Your task to perform on an android device: turn on the 12-hour format for clock Image 0: 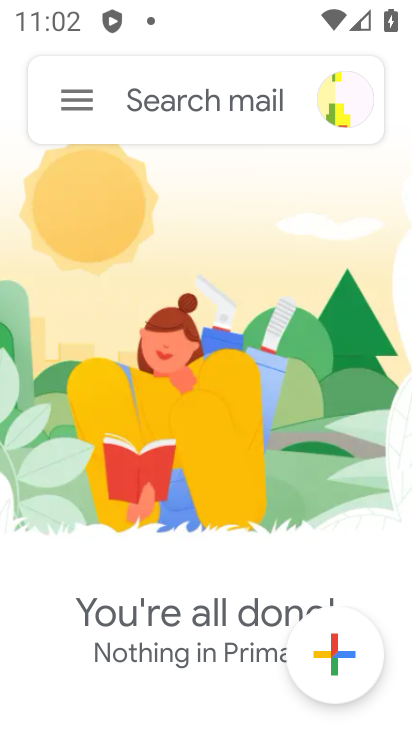
Step 0: press home button
Your task to perform on an android device: turn on the 12-hour format for clock Image 1: 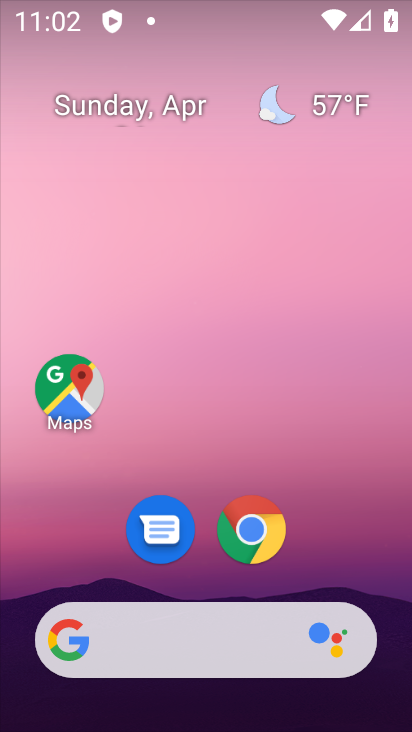
Step 1: drag from (336, 481) to (218, 103)
Your task to perform on an android device: turn on the 12-hour format for clock Image 2: 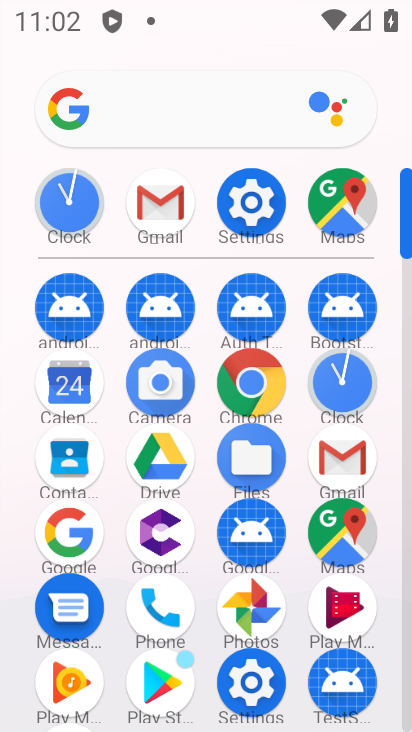
Step 2: click (340, 375)
Your task to perform on an android device: turn on the 12-hour format for clock Image 3: 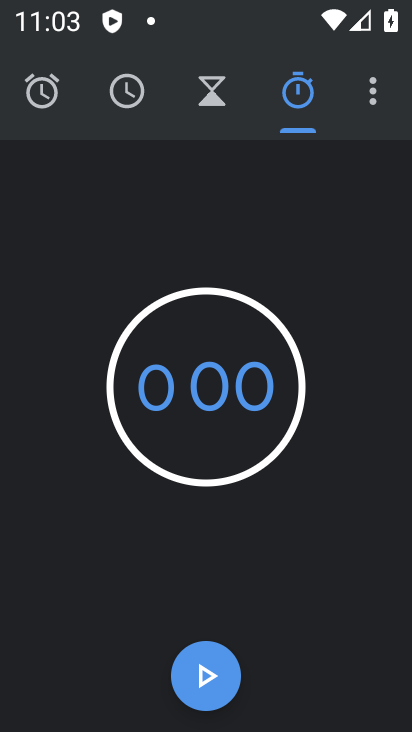
Step 3: click (364, 107)
Your task to perform on an android device: turn on the 12-hour format for clock Image 4: 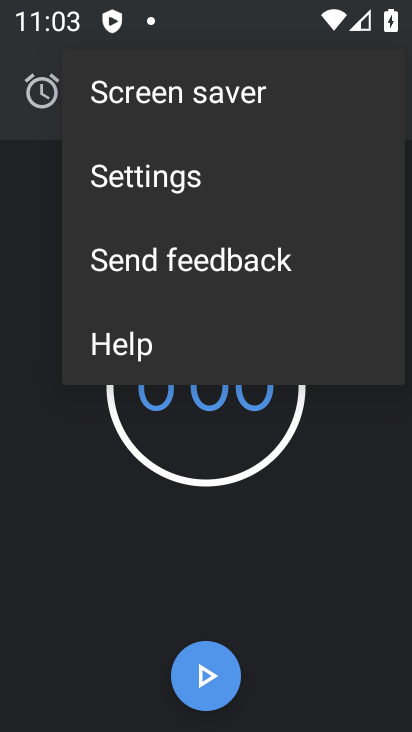
Step 4: click (155, 181)
Your task to perform on an android device: turn on the 12-hour format for clock Image 5: 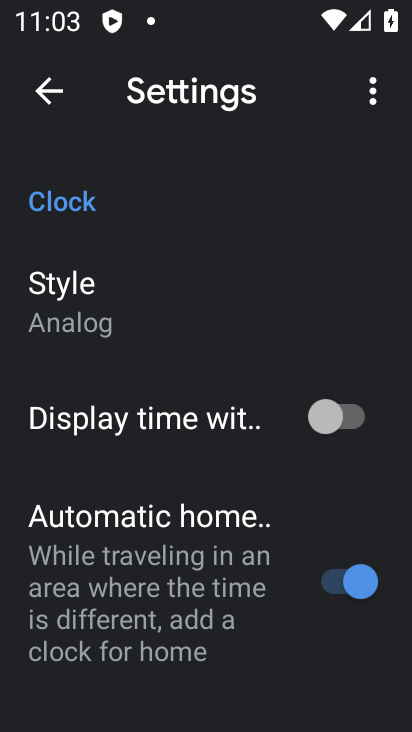
Step 5: drag from (219, 544) to (145, 148)
Your task to perform on an android device: turn on the 12-hour format for clock Image 6: 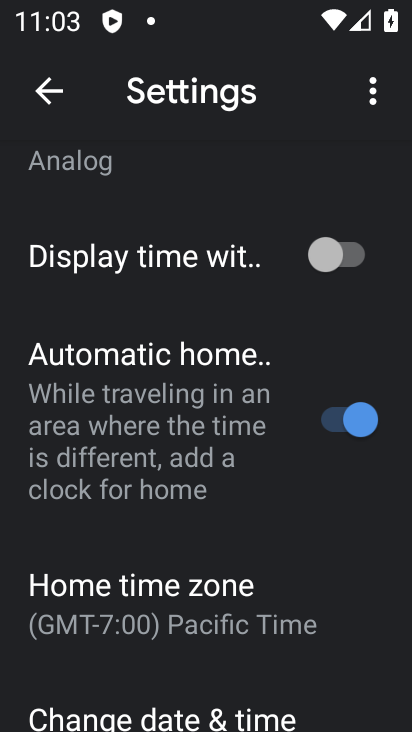
Step 6: click (179, 714)
Your task to perform on an android device: turn on the 12-hour format for clock Image 7: 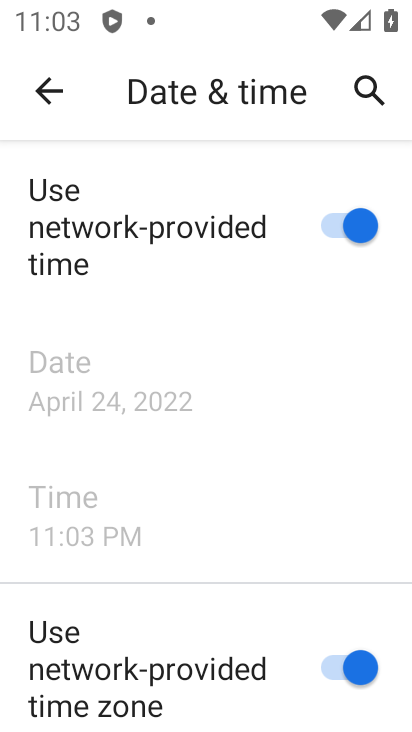
Step 7: task complete